Your task to perform on an android device: Go to settings Image 0: 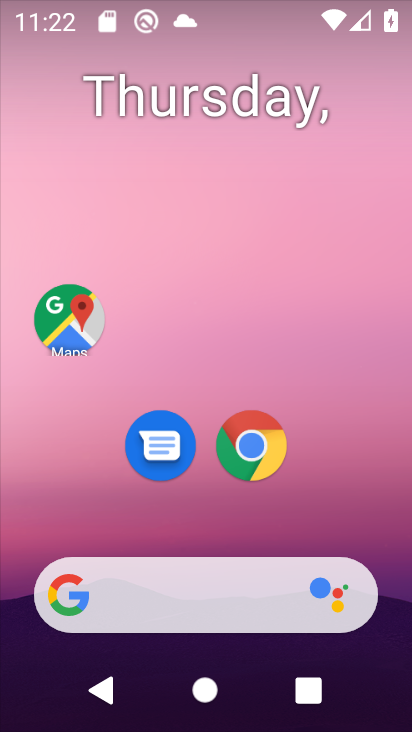
Step 0: drag from (207, 480) to (211, 53)
Your task to perform on an android device: Go to settings Image 1: 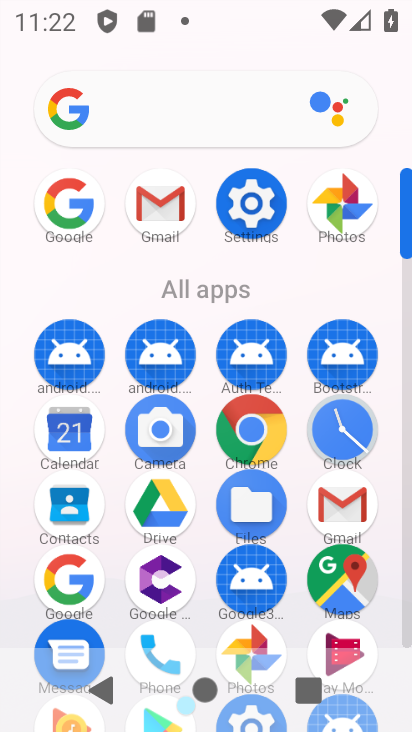
Step 1: click (251, 206)
Your task to perform on an android device: Go to settings Image 2: 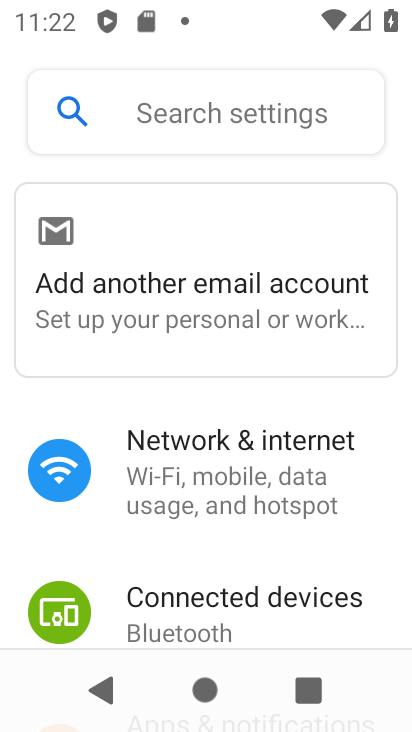
Step 2: task complete